Your task to perform on an android device: Search for apple airpods pro on newegg, select the first entry, add it to the cart, then select checkout. Image 0: 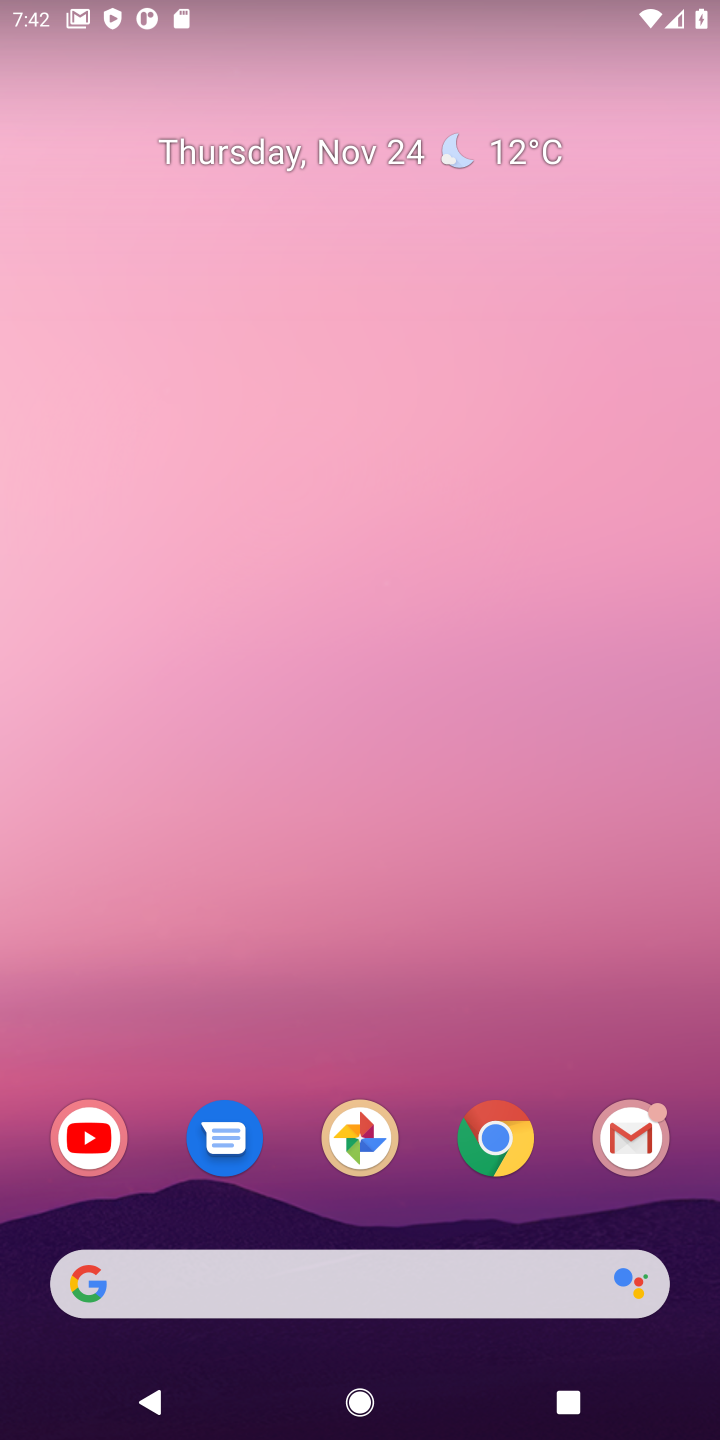
Step 0: click (502, 1147)
Your task to perform on an android device: Search for apple airpods pro on newegg, select the first entry, add it to the cart, then select checkout. Image 1: 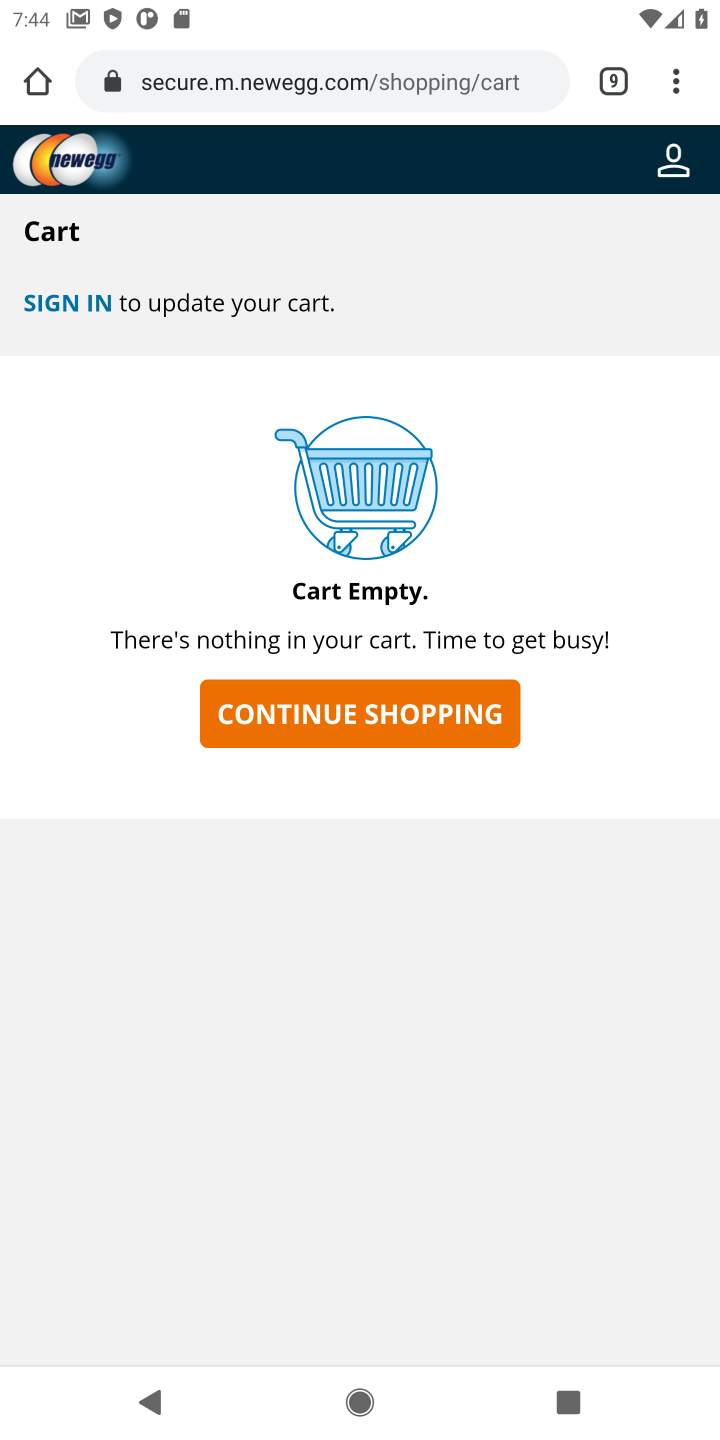
Step 1: press home button
Your task to perform on an android device: Search for apple airpods pro on newegg, select the first entry, add it to the cart, then select checkout. Image 2: 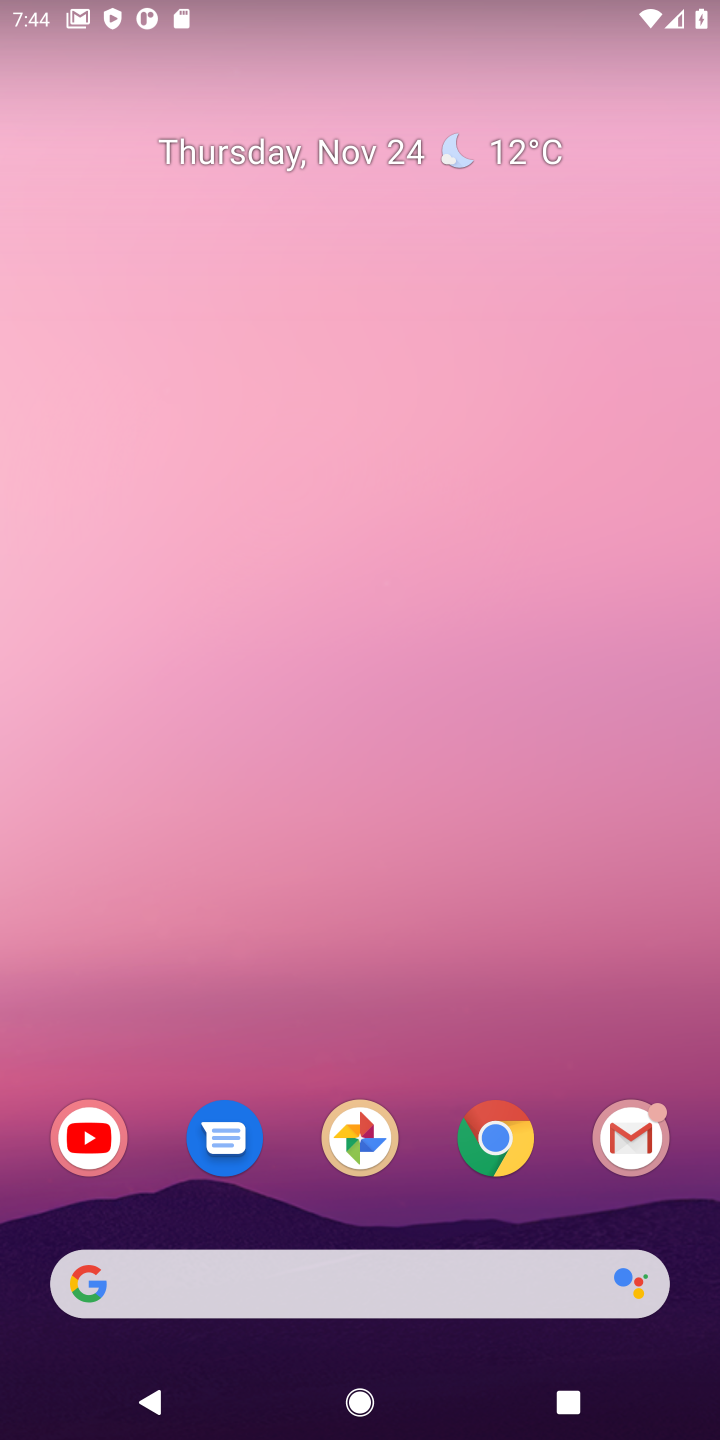
Step 2: click (514, 1127)
Your task to perform on an android device: Search for apple airpods pro on newegg, select the first entry, add it to the cart, then select checkout. Image 3: 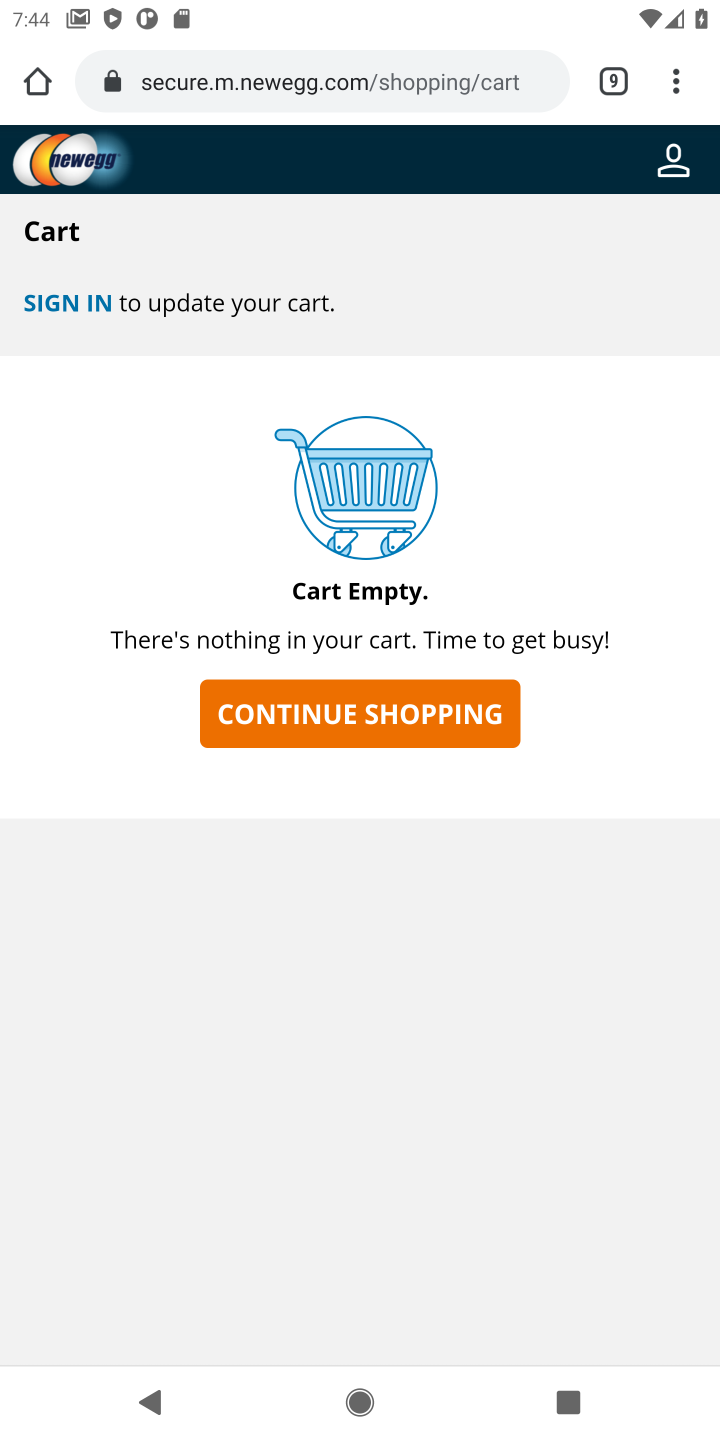
Step 3: click (619, 59)
Your task to perform on an android device: Search for apple airpods pro on newegg, select the first entry, add it to the cart, then select checkout. Image 4: 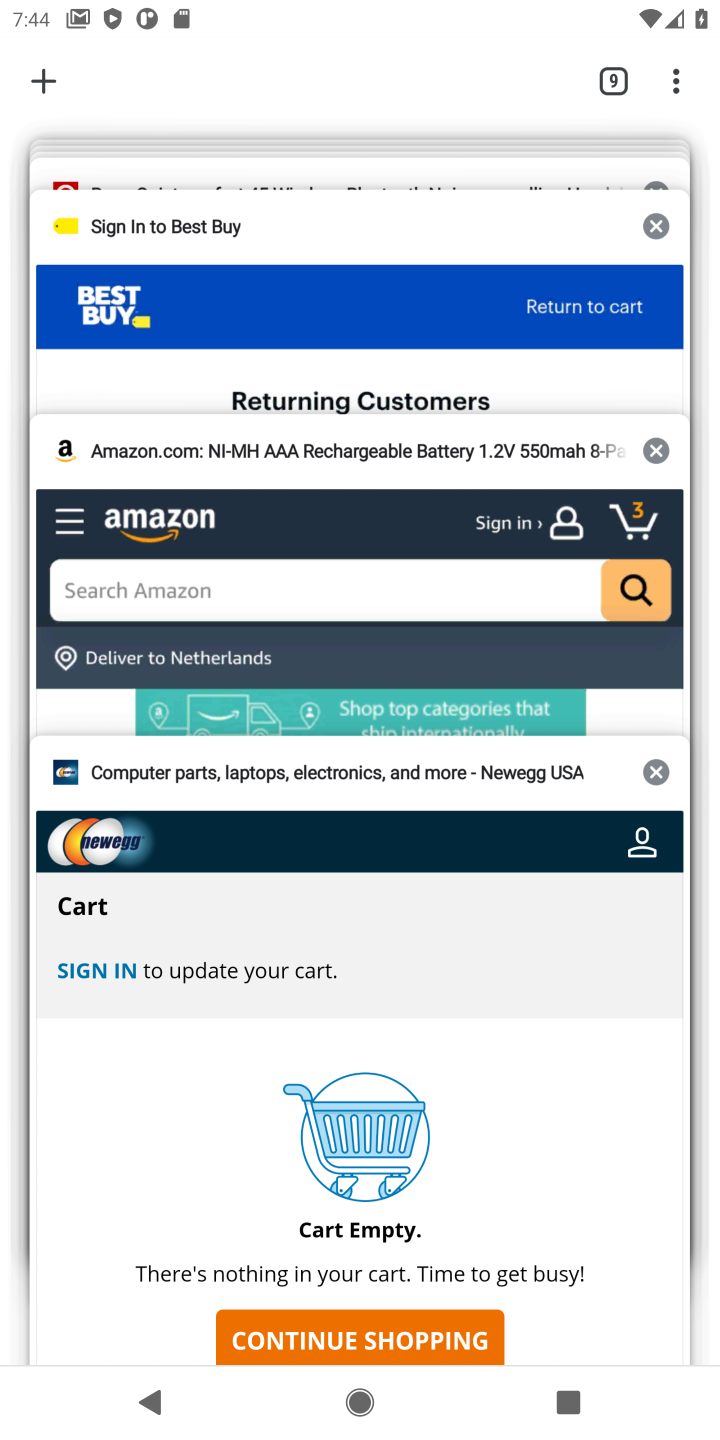
Step 4: click (313, 824)
Your task to perform on an android device: Search for apple airpods pro on newegg, select the first entry, add it to the cart, then select checkout. Image 5: 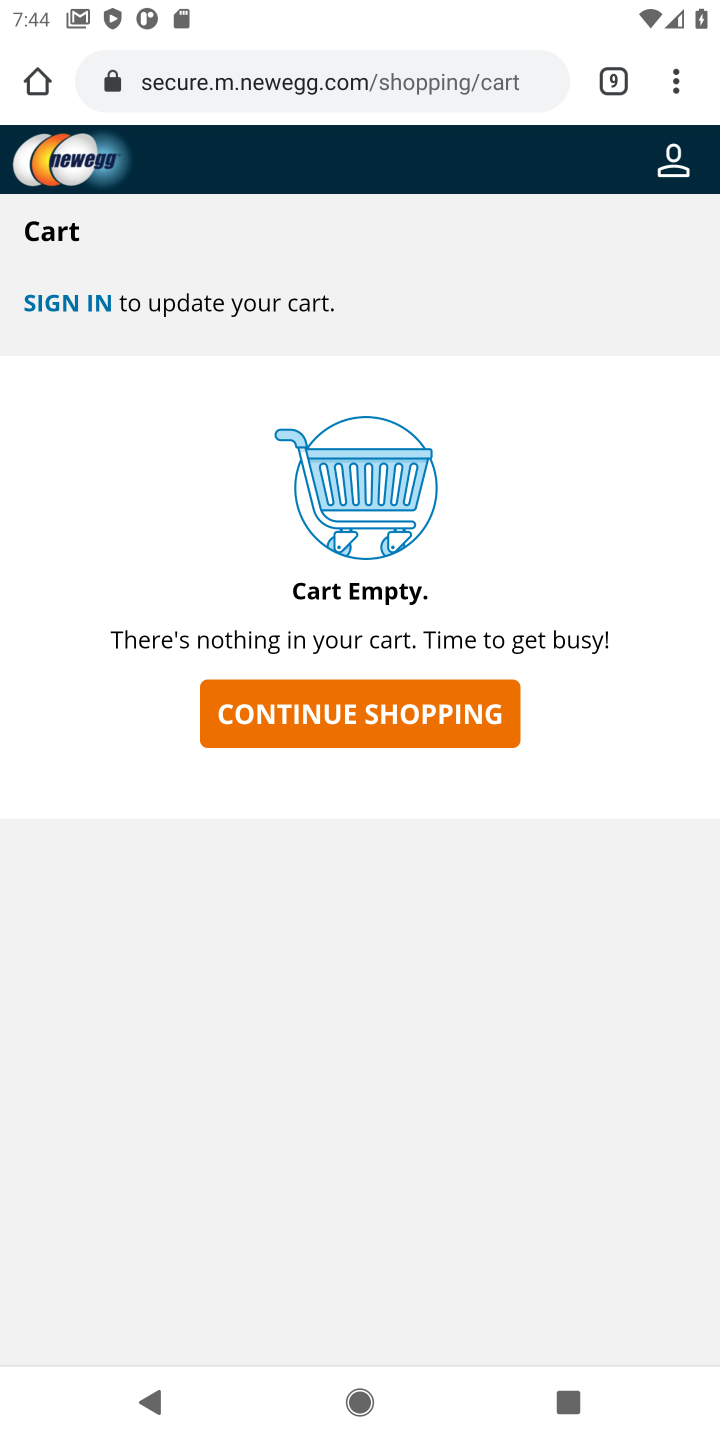
Step 5: click (410, 709)
Your task to perform on an android device: Search for apple airpods pro on newegg, select the first entry, add it to the cart, then select checkout. Image 6: 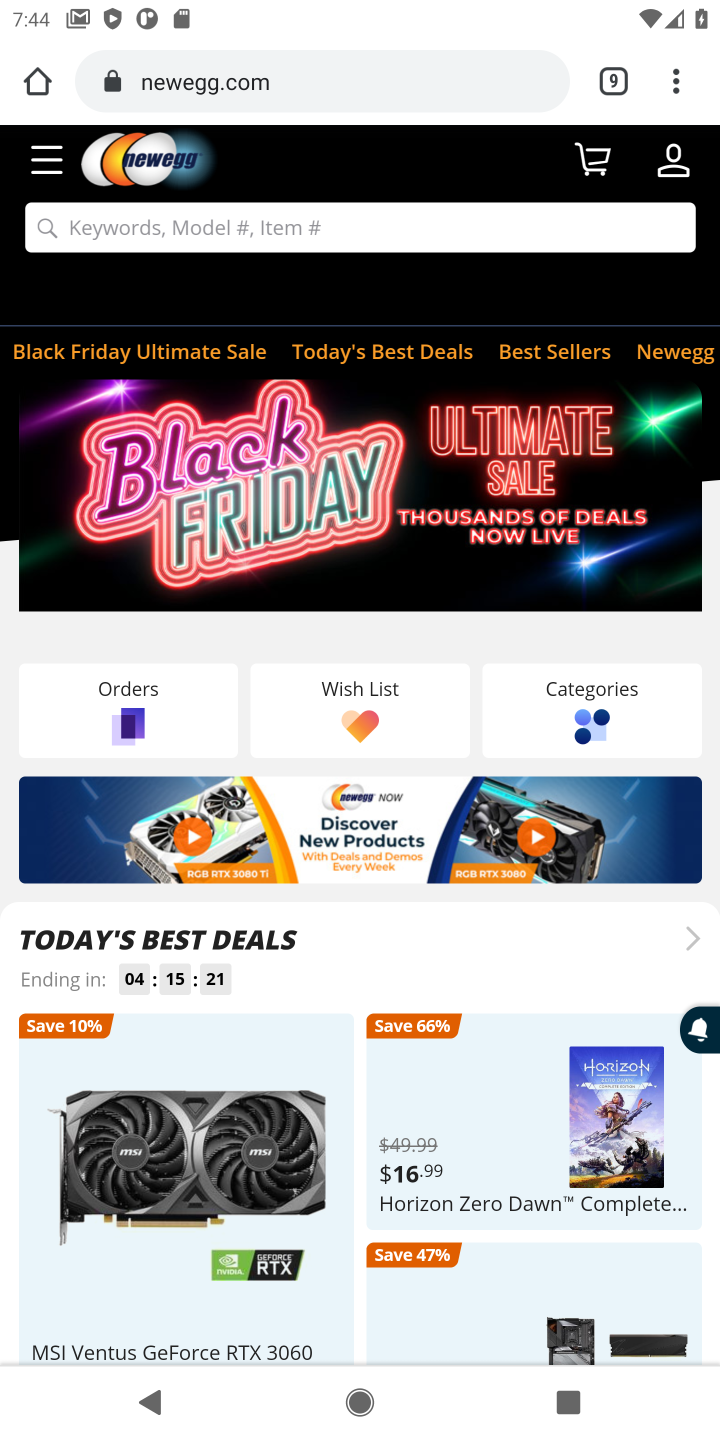
Step 6: click (333, 219)
Your task to perform on an android device: Search for apple airpods pro on newegg, select the first entry, add it to the cart, then select checkout. Image 7: 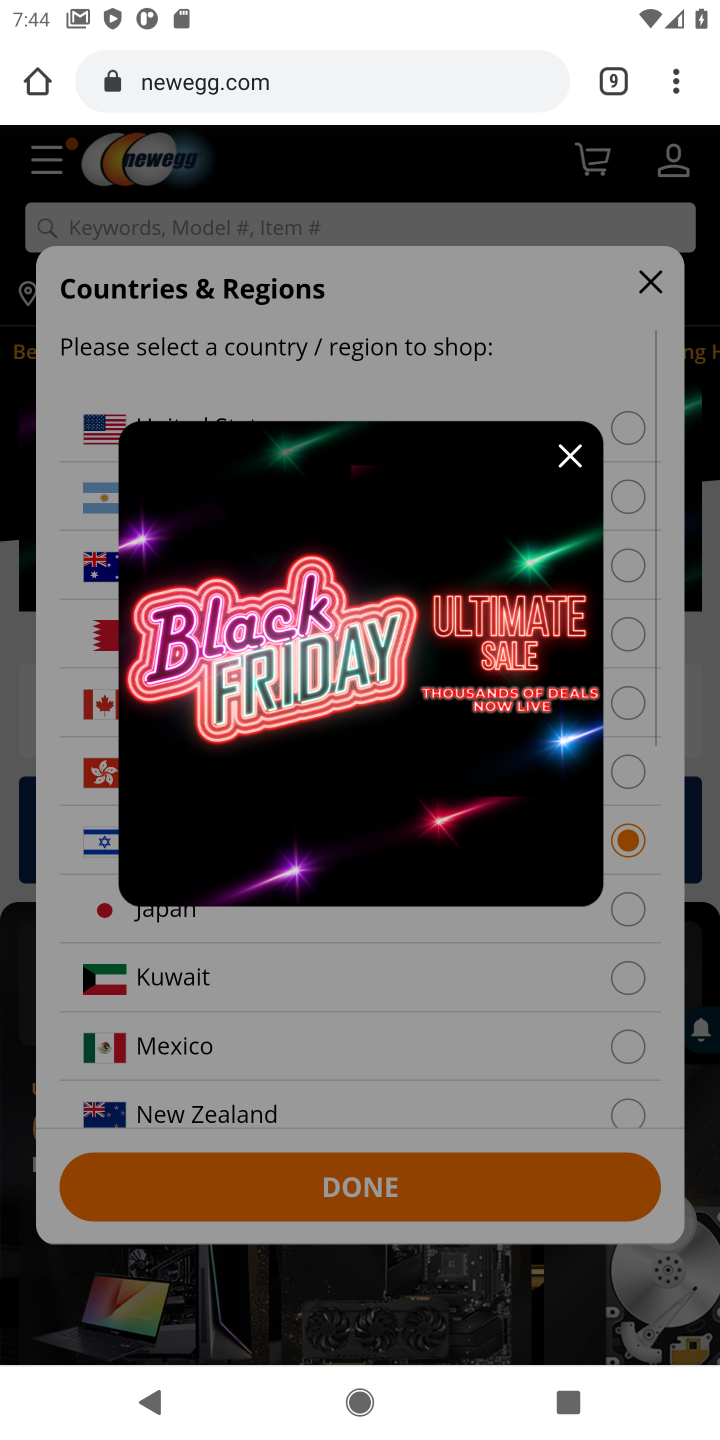
Step 7: click (656, 264)
Your task to perform on an android device: Search for apple airpods pro on newegg, select the first entry, add it to the cart, then select checkout. Image 8: 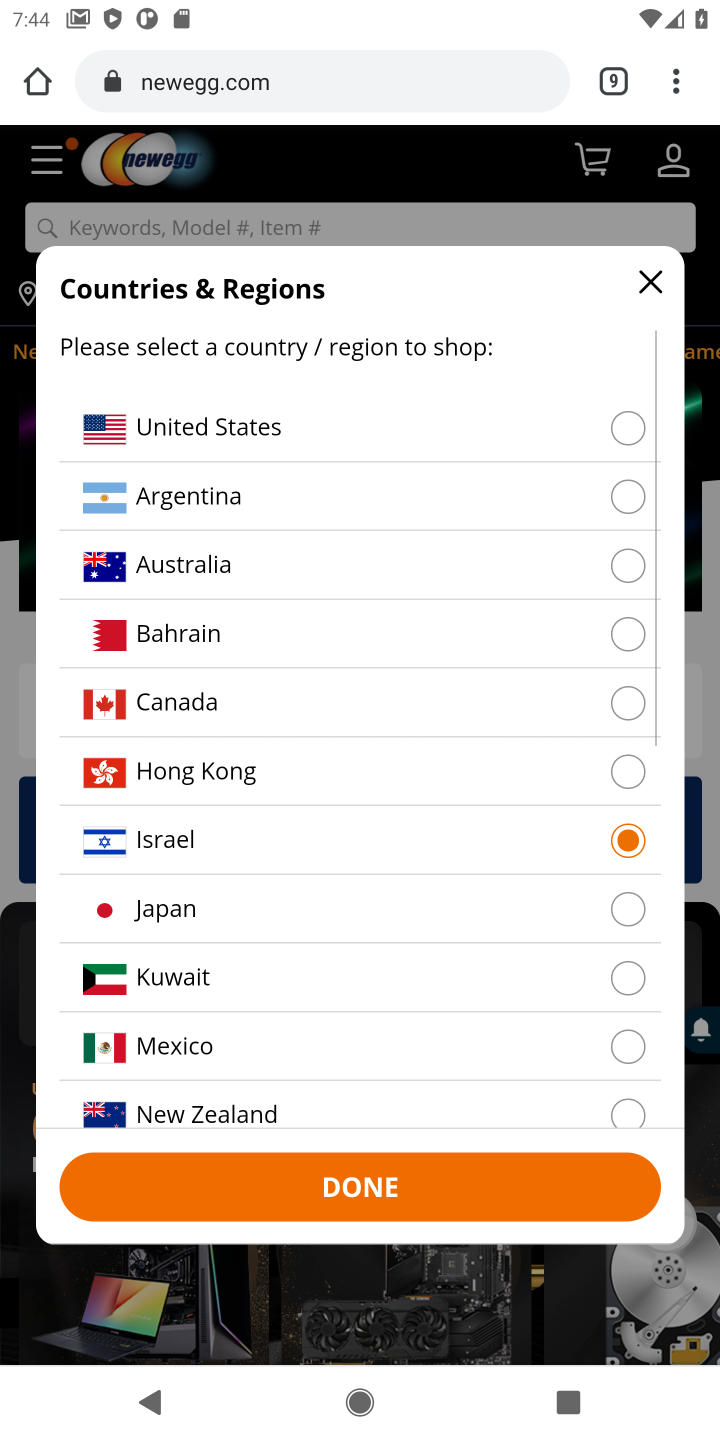
Step 8: click (642, 276)
Your task to perform on an android device: Search for apple airpods pro on newegg, select the first entry, add it to the cart, then select checkout. Image 9: 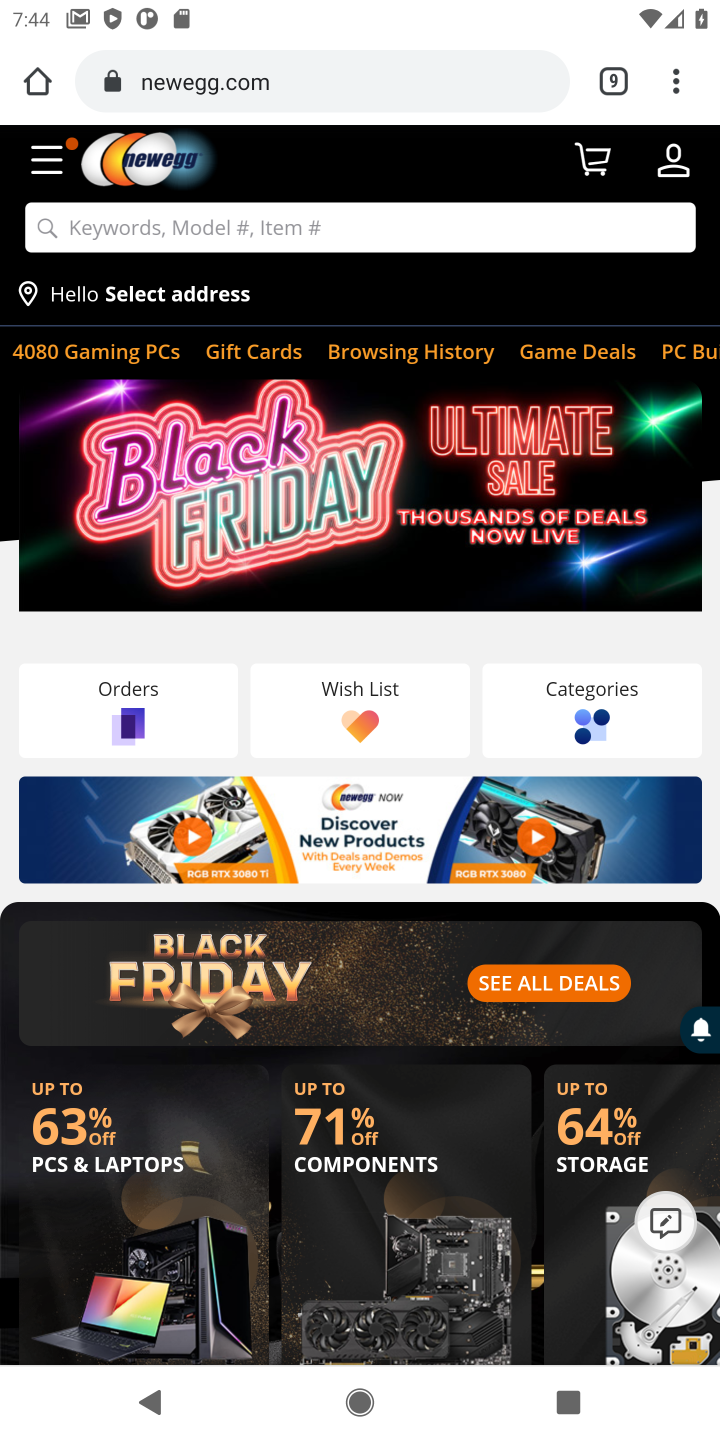
Step 9: click (390, 216)
Your task to perform on an android device: Search for apple airpods pro on newegg, select the first entry, add it to the cart, then select checkout. Image 10: 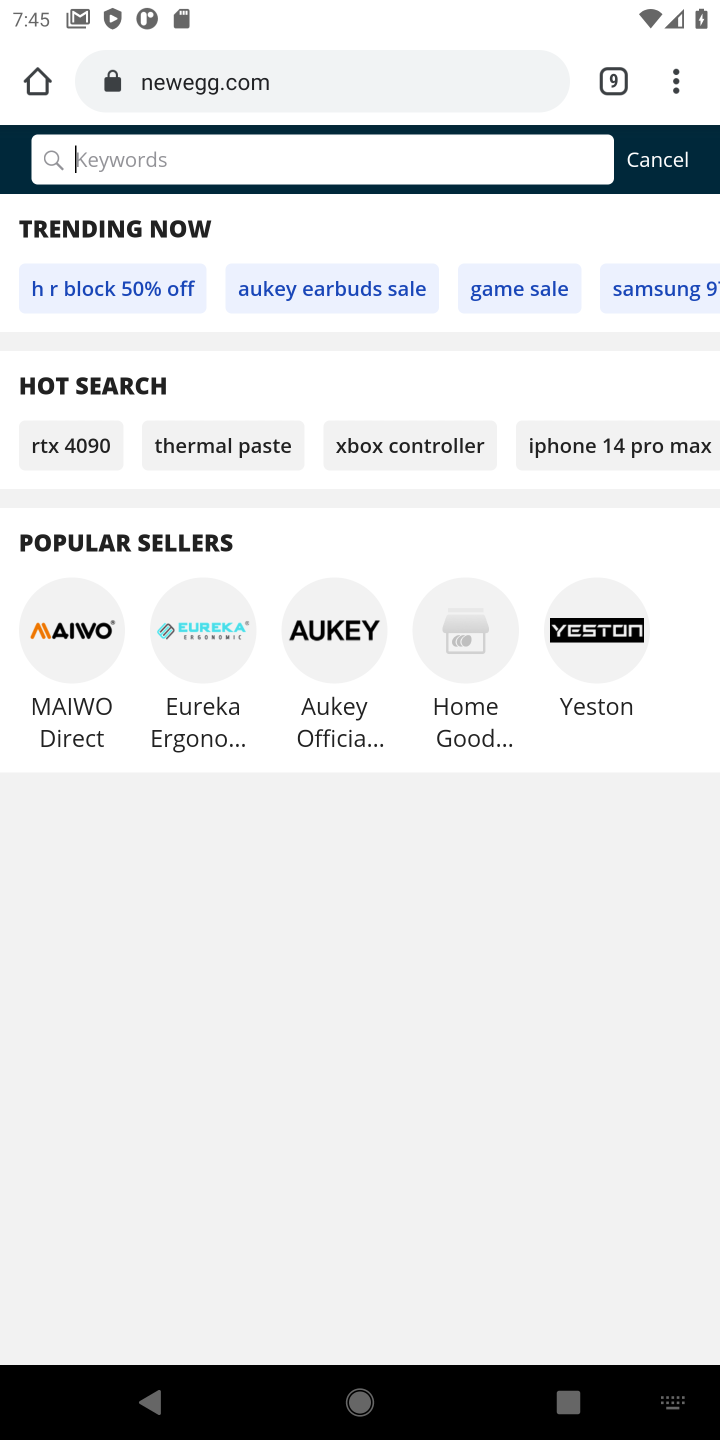
Step 10: type " apple airpods pro "
Your task to perform on an android device: Search for apple airpods pro on newegg, select the first entry, add it to the cart, then select checkout. Image 11: 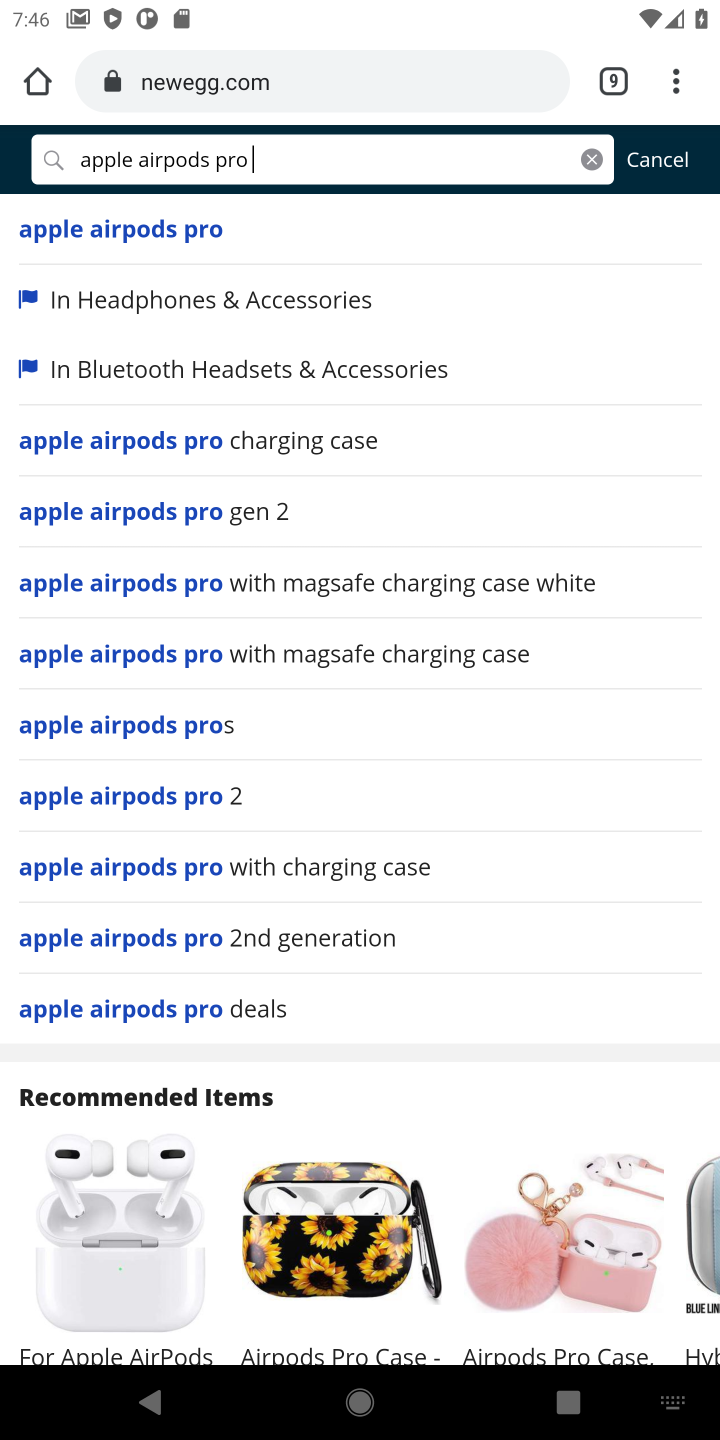
Step 11: click (179, 238)
Your task to perform on an android device: Search for apple airpods pro on newegg, select the first entry, add it to the cart, then select checkout. Image 12: 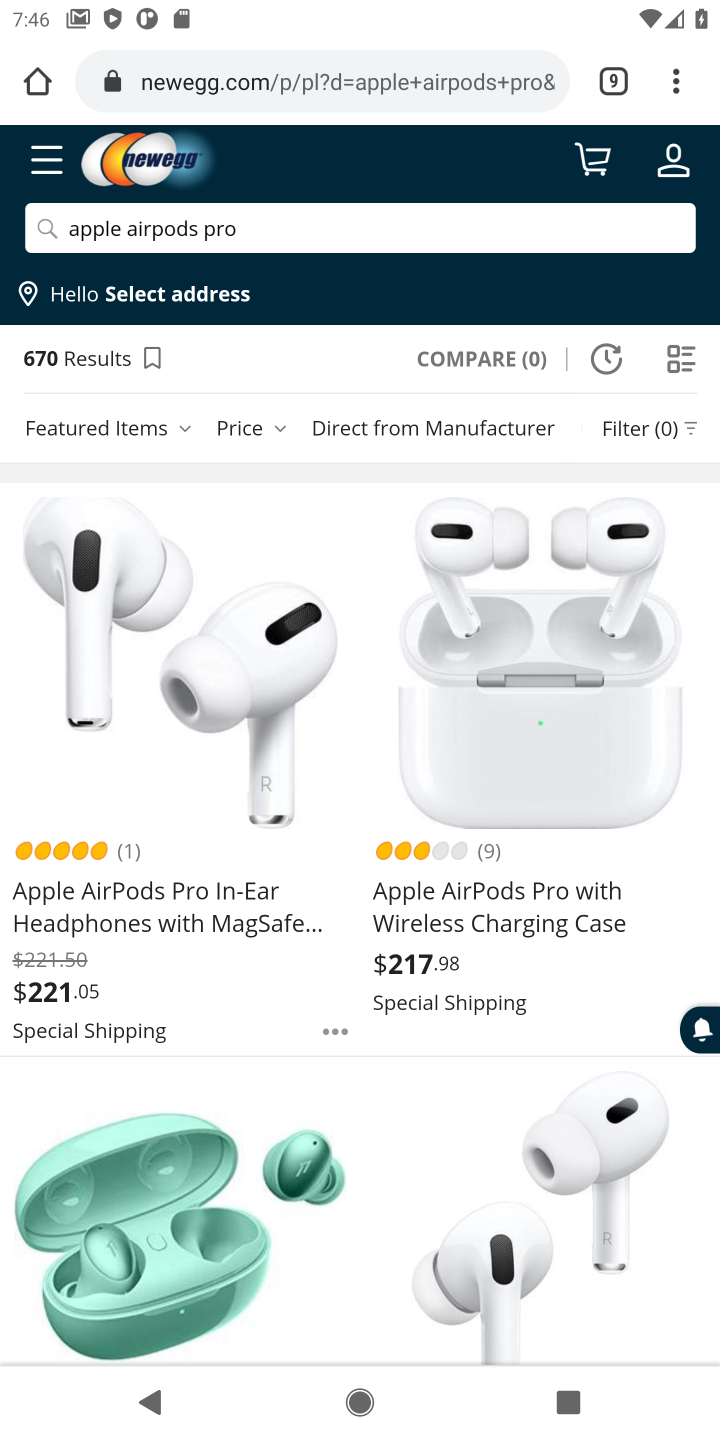
Step 12: click (110, 701)
Your task to perform on an android device: Search for apple airpods pro on newegg, select the first entry, add it to the cart, then select checkout. Image 13: 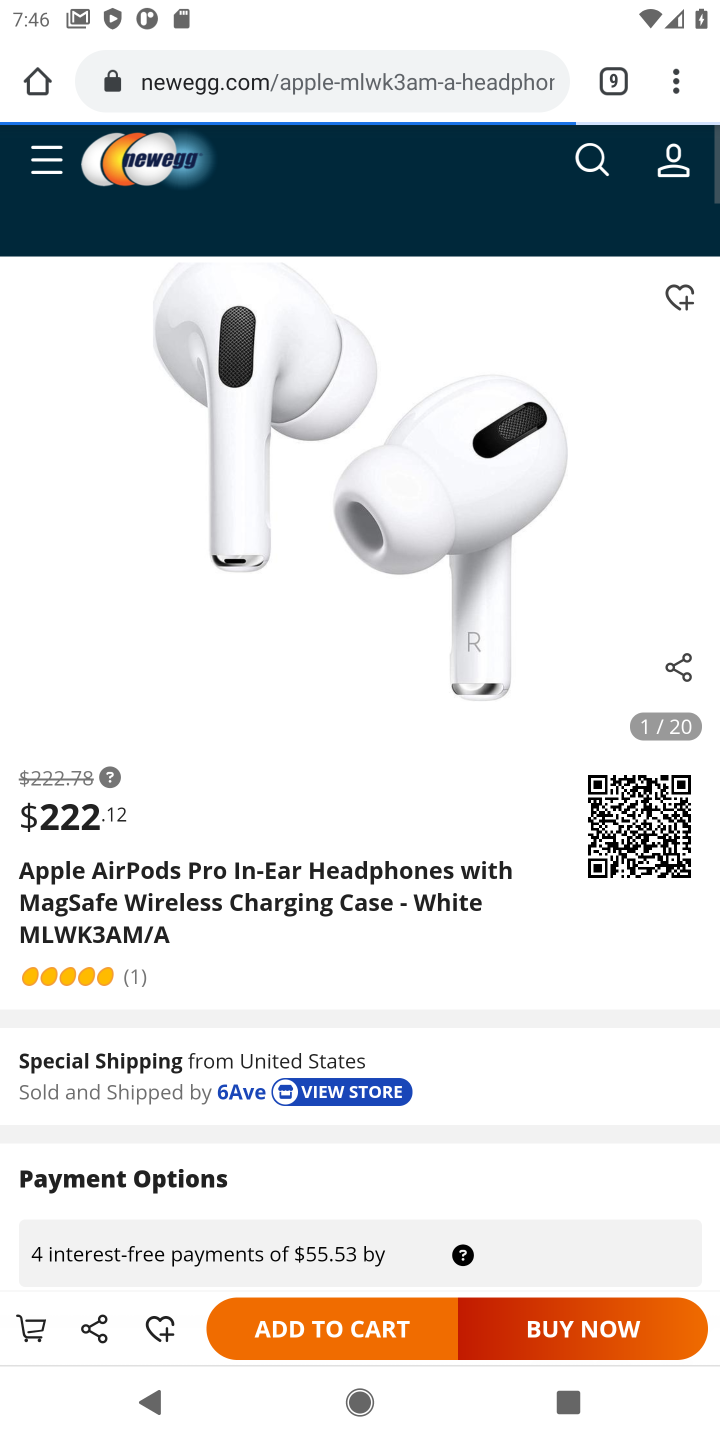
Step 13: click (110, 701)
Your task to perform on an android device: Search for apple airpods pro on newegg, select the first entry, add it to the cart, then select checkout. Image 14: 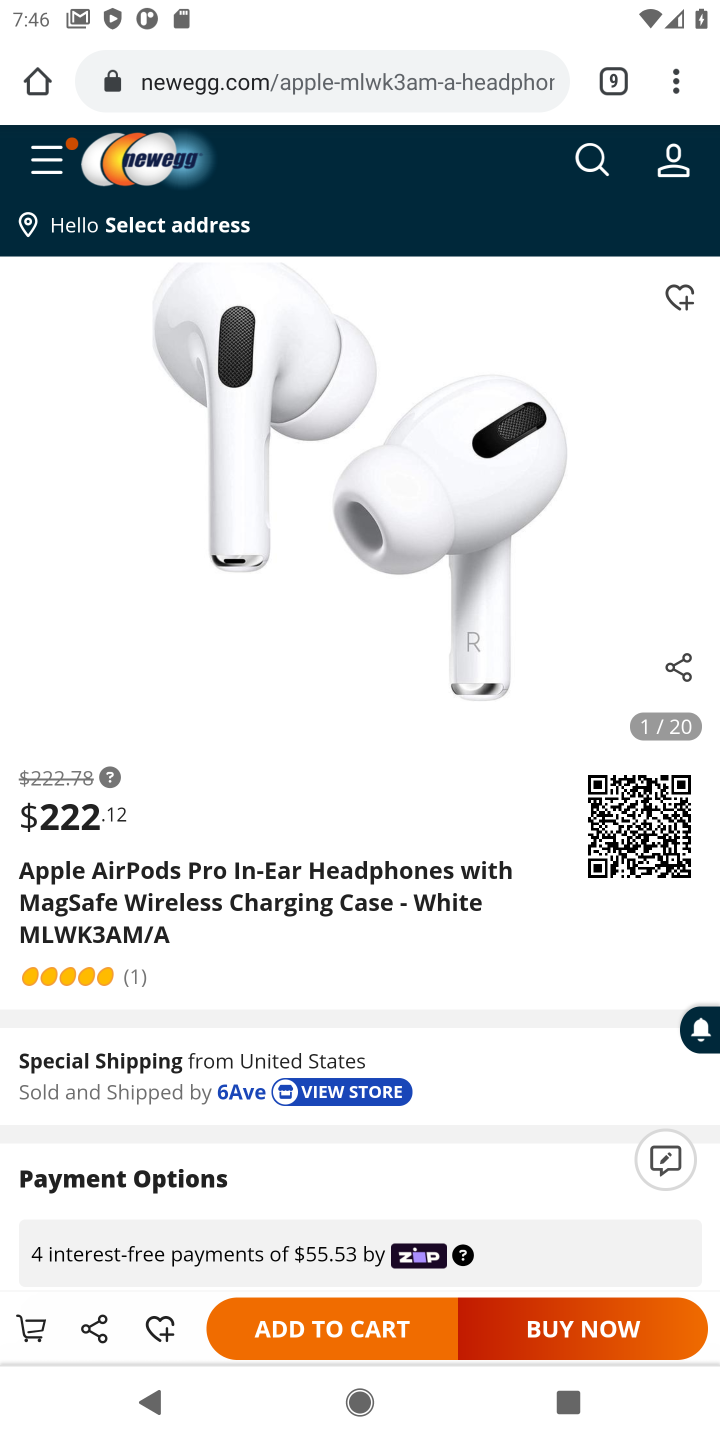
Step 14: click (331, 1328)
Your task to perform on an android device: Search for apple airpods pro on newegg, select the first entry, add it to the cart, then select checkout. Image 15: 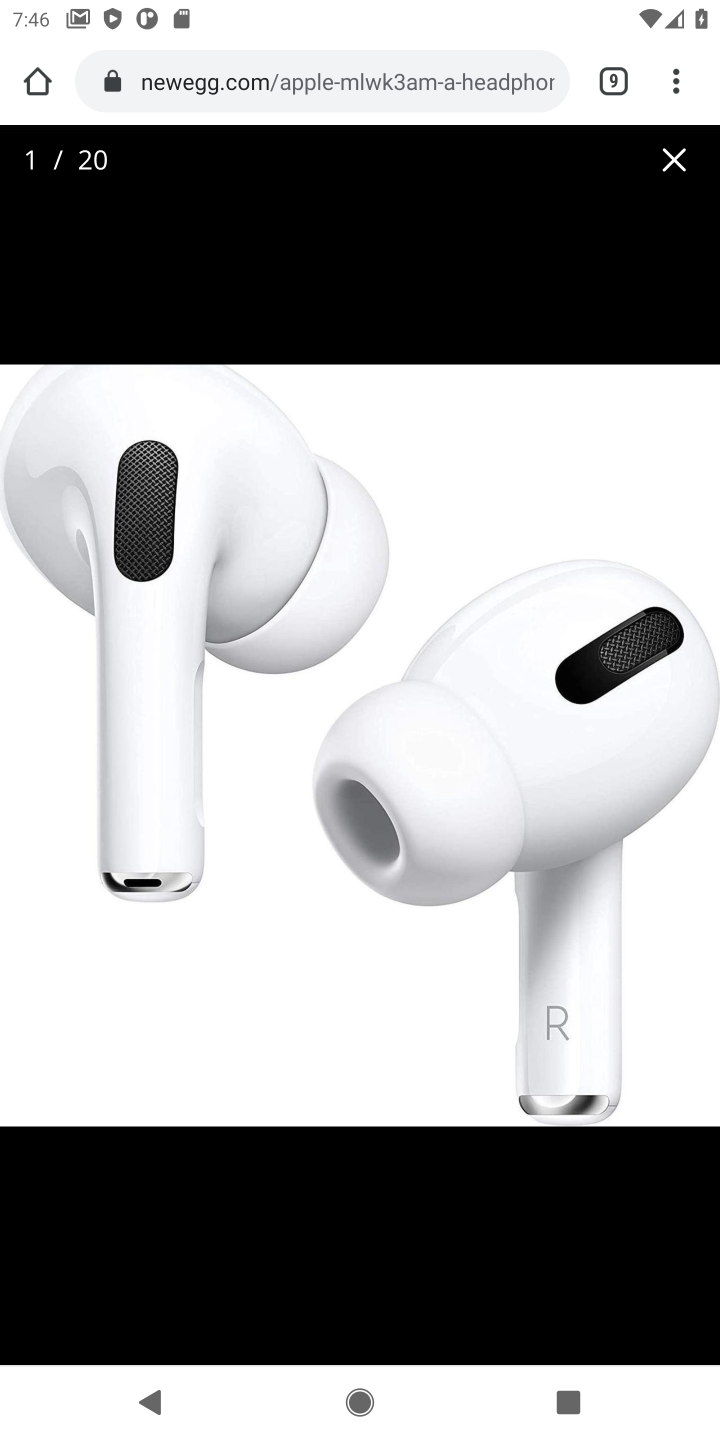
Step 15: click (678, 156)
Your task to perform on an android device: Search for apple airpods pro on newegg, select the first entry, add it to the cart, then select checkout. Image 16: 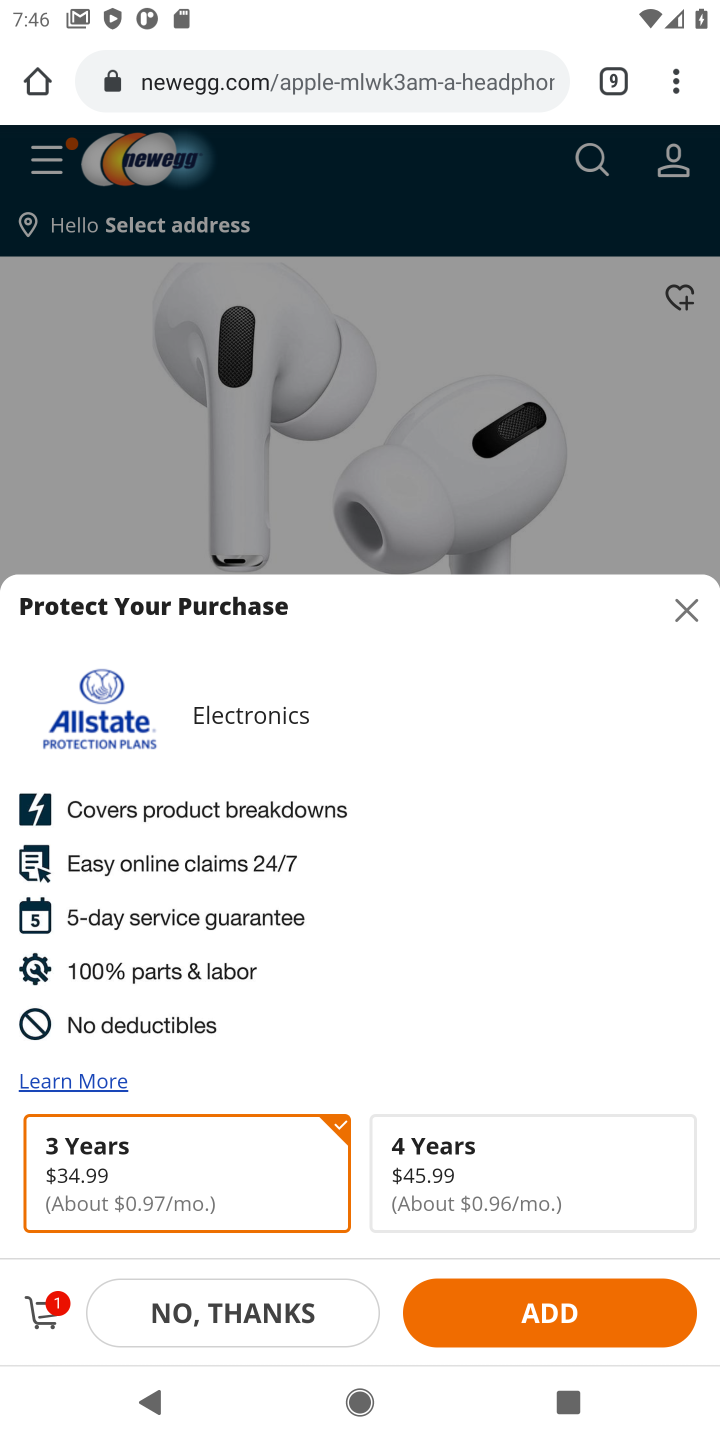
Step 16: click (191, 1310)
Your task to perform on an android device: Search for apple airpods pro on newegg, select the first entry, add it to the cart, then select checkout. Image 17: 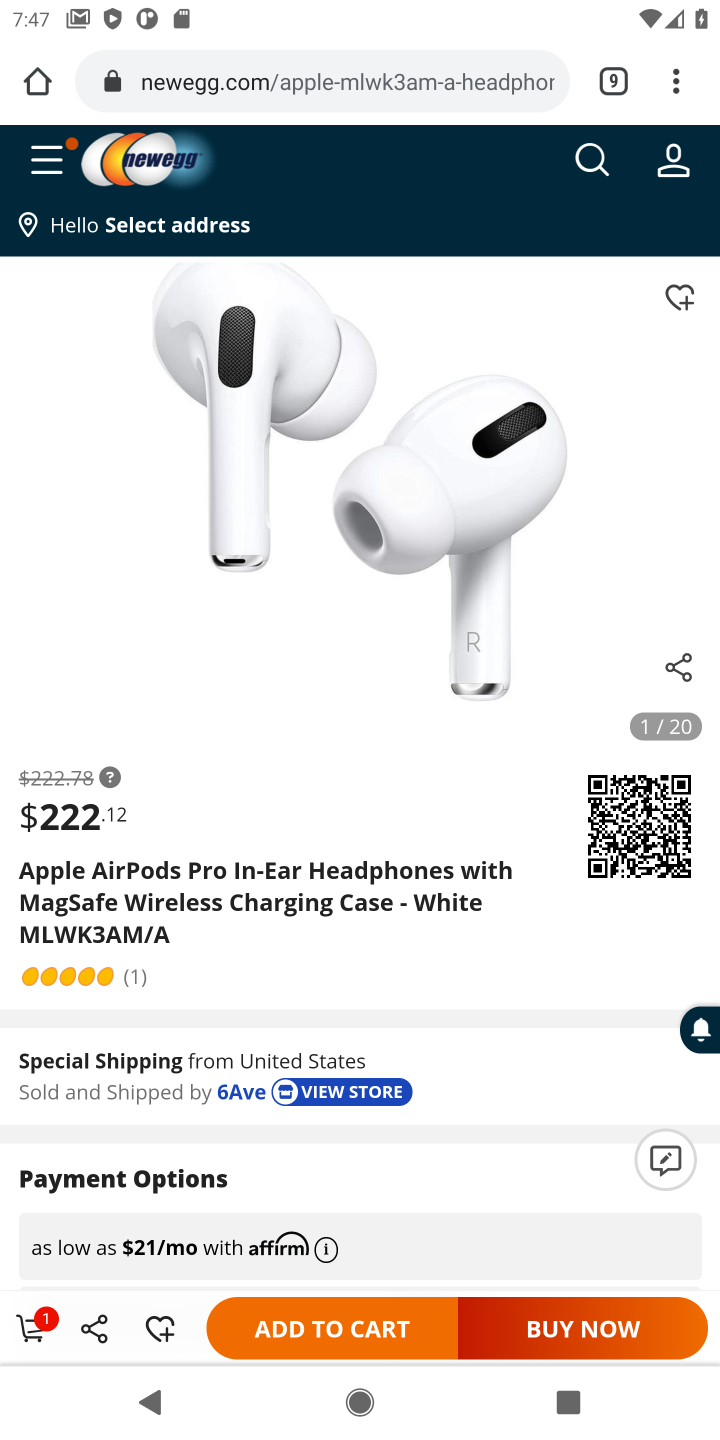
Step 17: drag from (393, 1196) to (393, 823)
Your task to perform on an android device: Search for apple airpods pro on newegg, select the first entry, add it to the cart, then select checkout. Image 18: 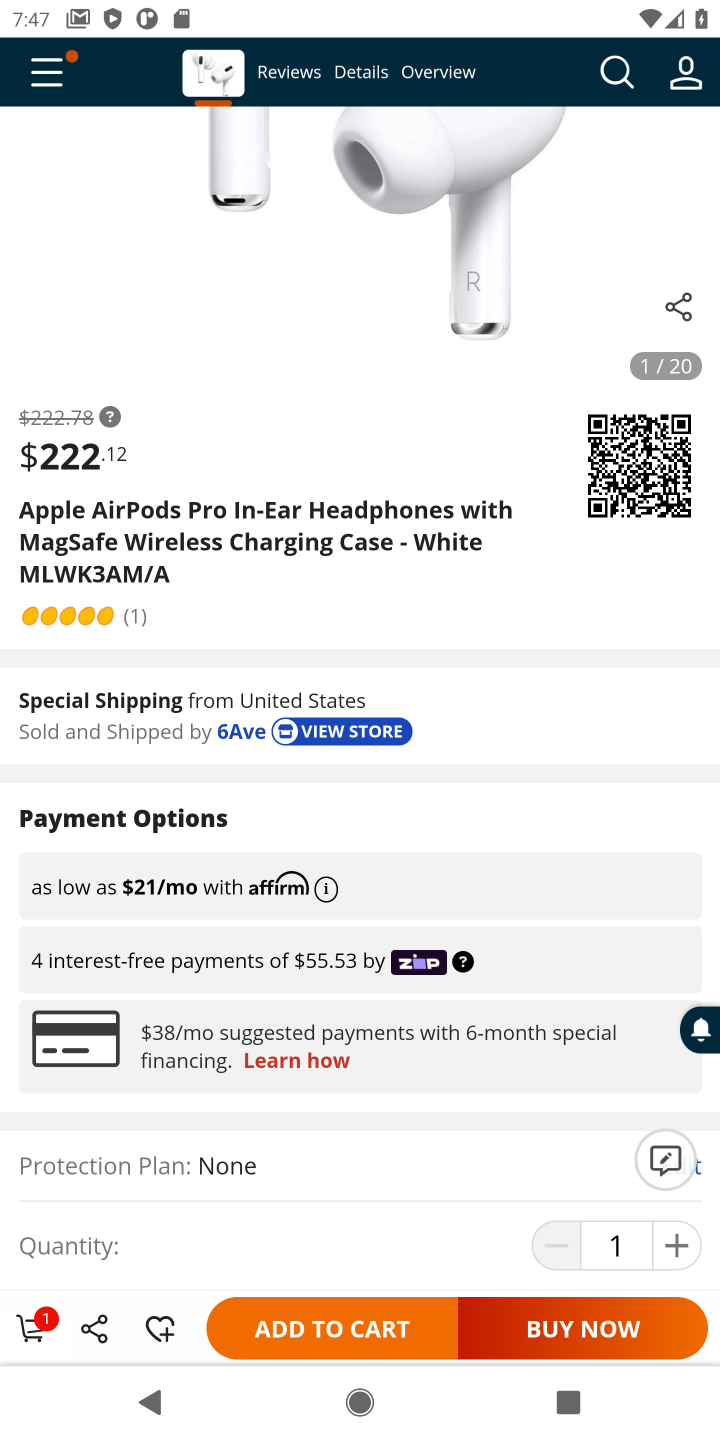
Step 18: click (317, 1313)
Your task to perform on an android device: Search for apple airpods pro on newegg, select the first entry, add it to the cart, then select checkout. Image 19: 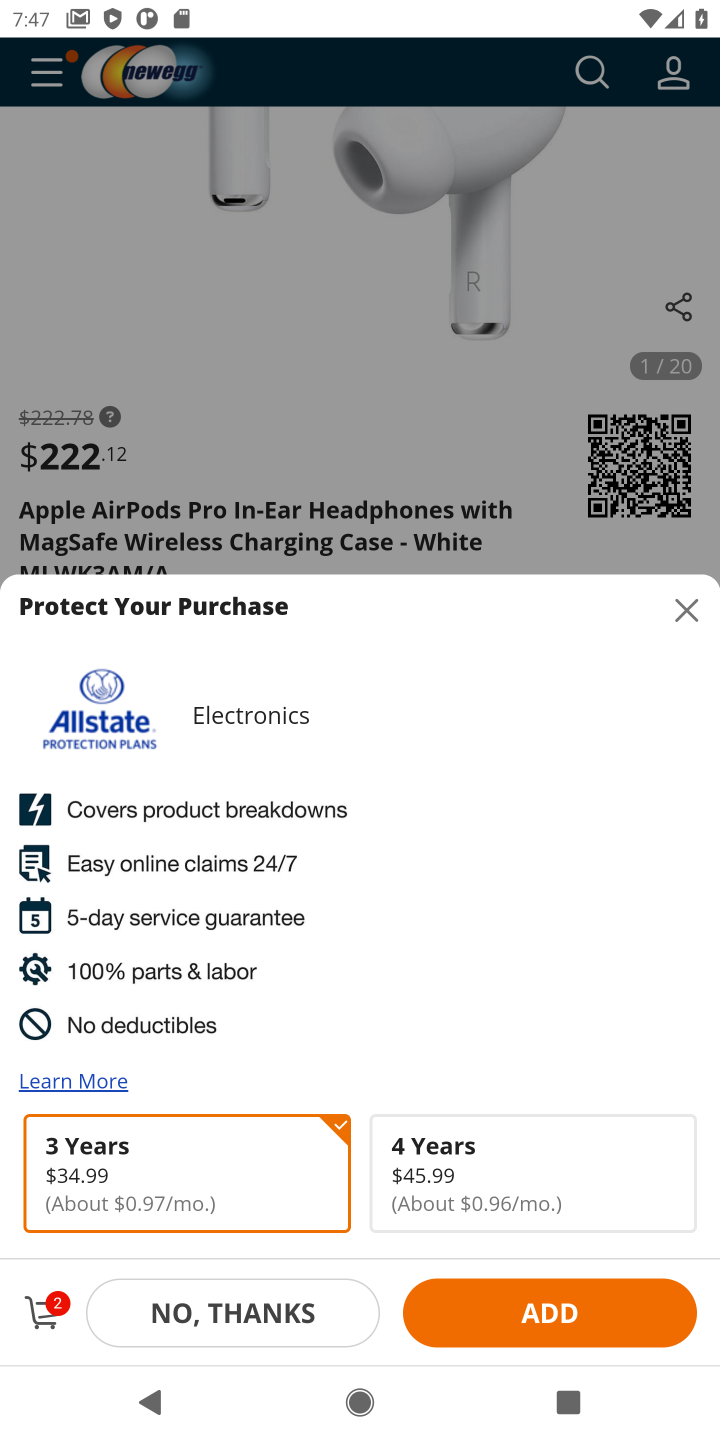
Step 19: click (289, 1320)
Your task to perform on an android device: Search for apple airpods pro on newegg, select the first entry, add it to the cart, then select checkout. Image 20: 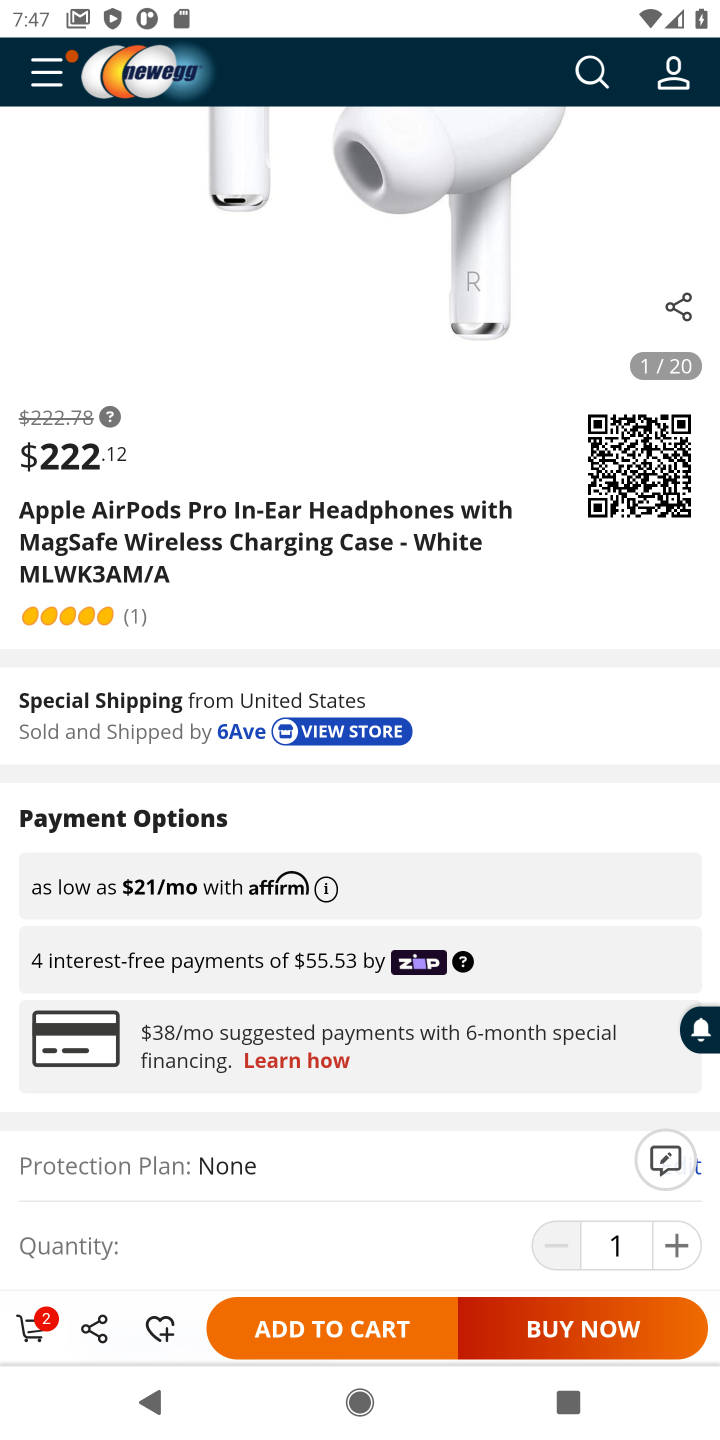
Step 20: drag from (387, 1208) to (443, 744)
Your task to perform on an android device: Search for apple airpods pro on newegg, select the first entry, add it to the cart, then select checkout. Image 21: 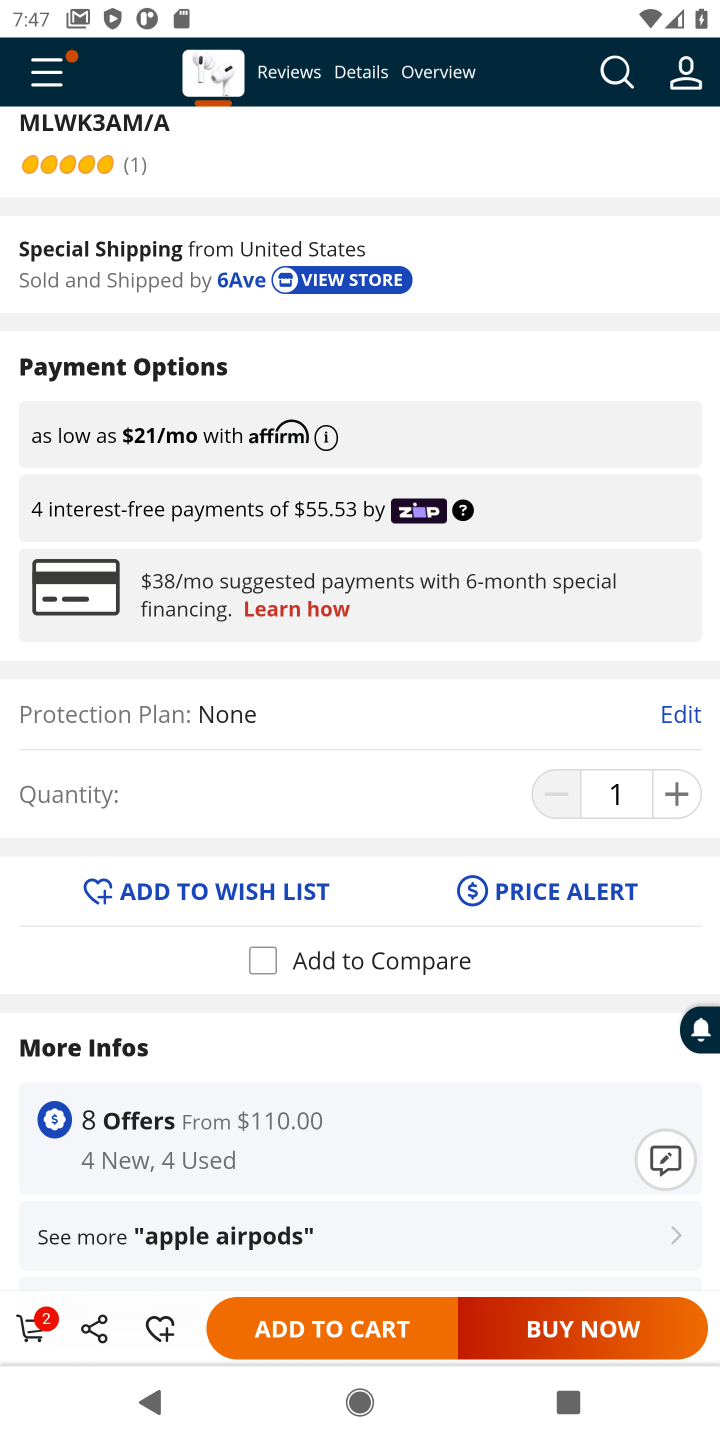
Step 21: click (298, 1321)
Your task to perform on an android device: Search for apple airpods pro on newegg, select the first entry, add it to the cart, then select checkout. Image 22: 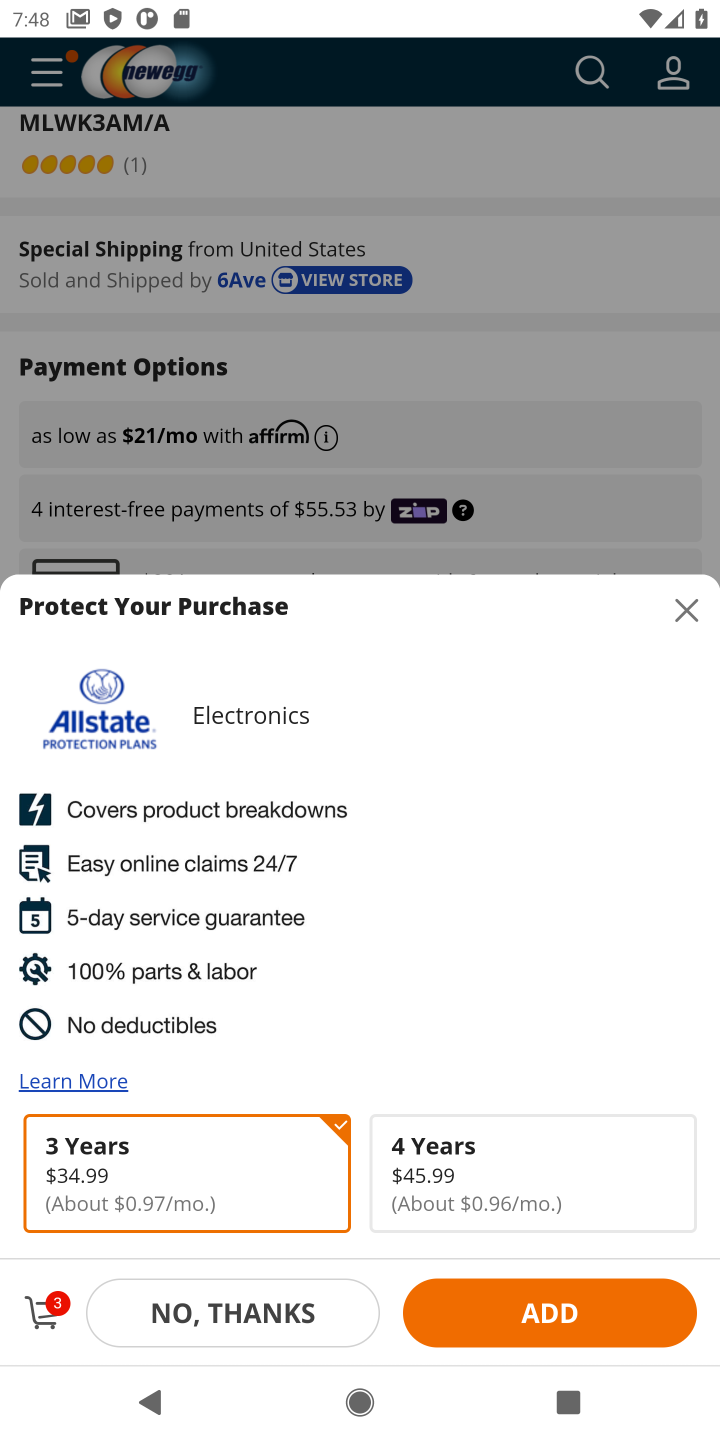
Step 22: click (689, 599)
Your task to perform on an android device: Search for apple airpods pro on newegg, select the first entry, add it to the cart, then select checkout. Image 23: 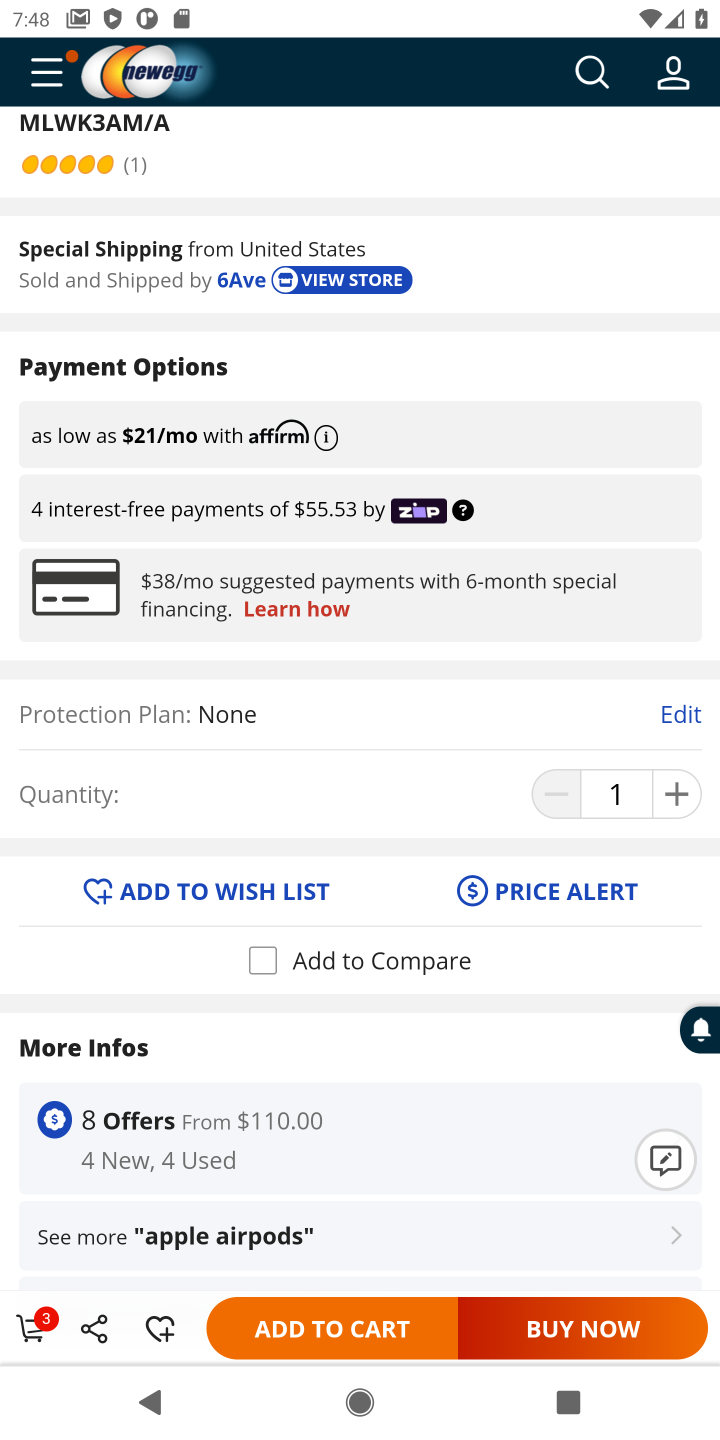
Step 23: task complete